Your task to perform on an android device: What's the weather going to be tomorrow? Image 0: 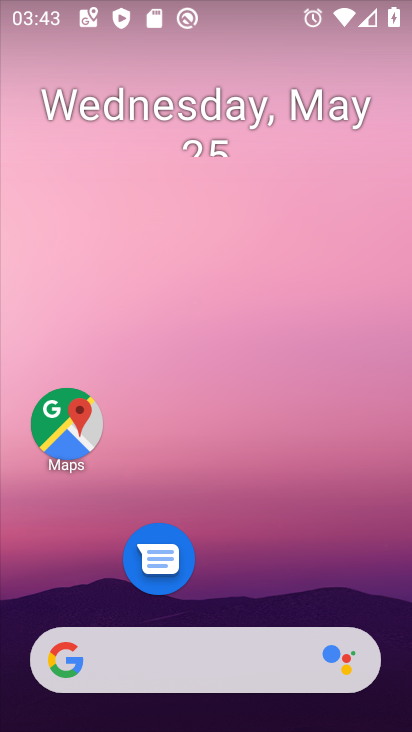
Step 0: press home button
Your task to perform on an android device: What's the weather going to be tomorrow? Image 1: 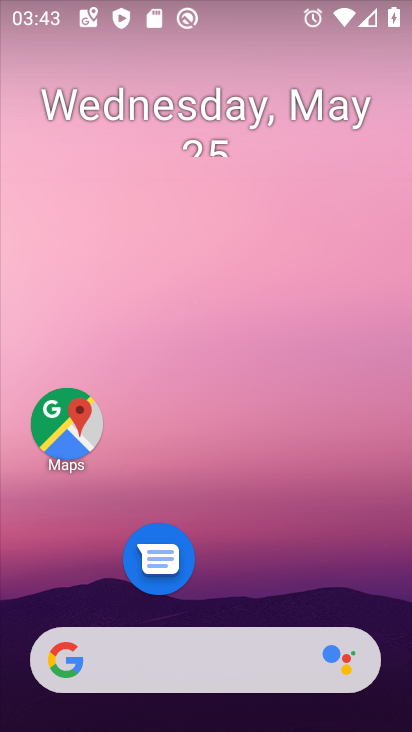
Step 1: drag from (229, 611) to (245, 499)
Your task to perform on an android device: What's the weather going to be tomorrow? Image 2: 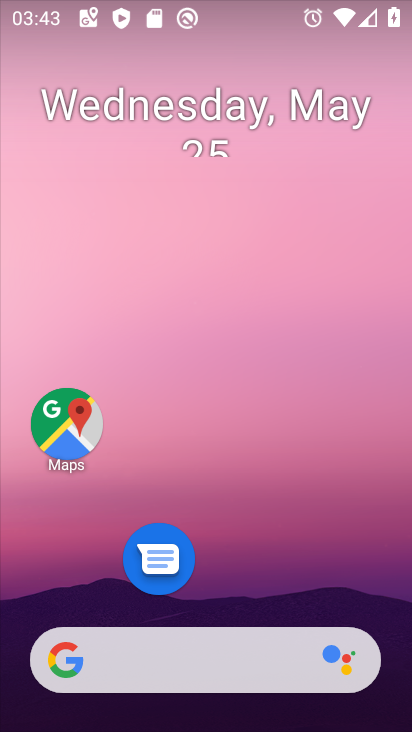
Step 2: drag from (11, 306) to (382, 343)
Your task to perform on an android device: What's the weather going to be tomorrow? Image 3: 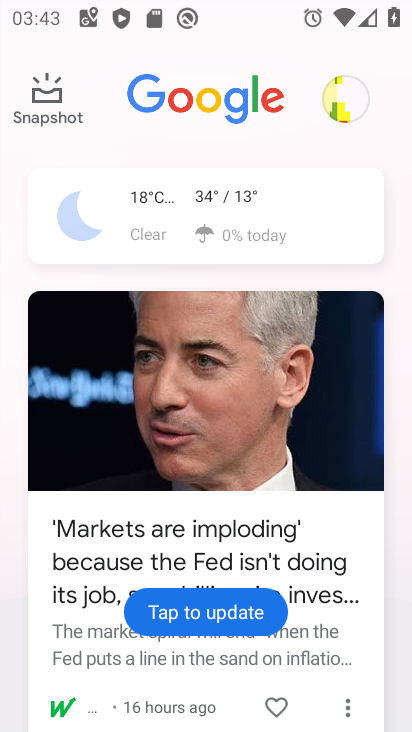
Step 3: click (238, 209)
Your task to perform on an android device: What's the weather going to be tomorrow? Image 4: 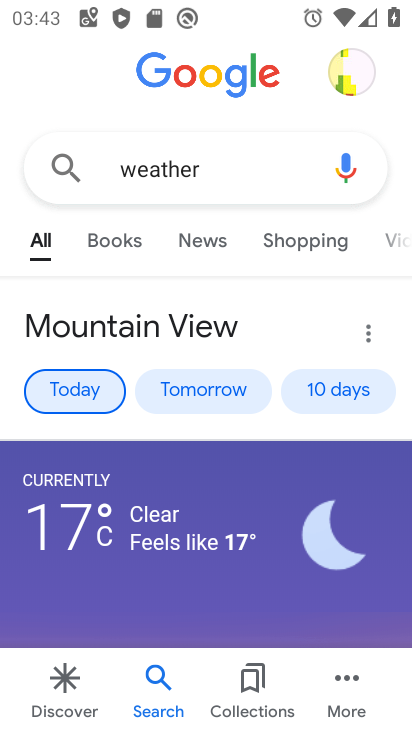
Step 4: click (189, 388)
Your task to perform on an android device: What's the weather going to be tomorrow? Image 5: 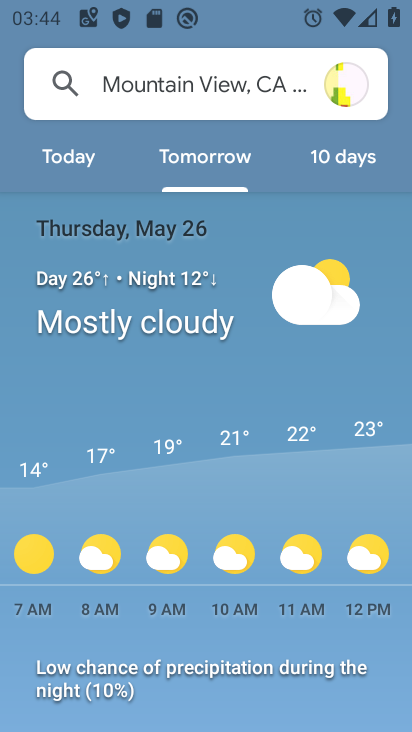
Step 5: drag from (362, 563) to (7, 558)
Your task to perform on an android device: What's the weather going to be tomorrow? Image 6: 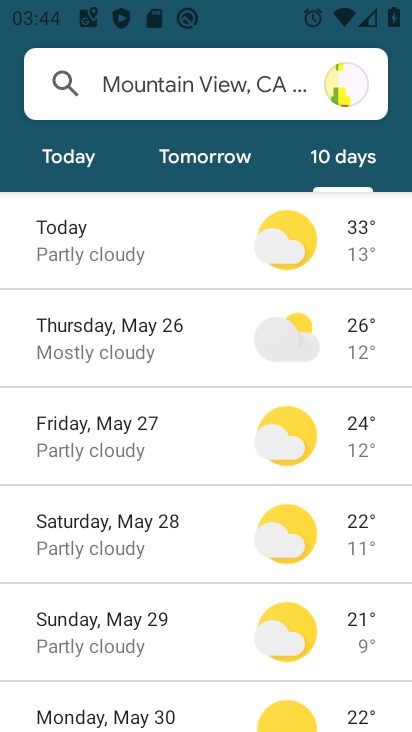
Step 6: click (222, 157)
Your task to perform on an android device: What's the weather going to be tomorrow? Image 7: 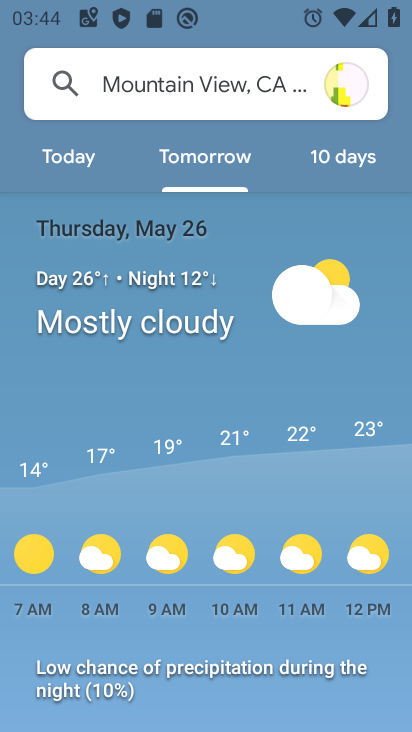
Step 7: task complete